Your task to perform on an android device: turn on showing notifications on the lock screen Image 0: 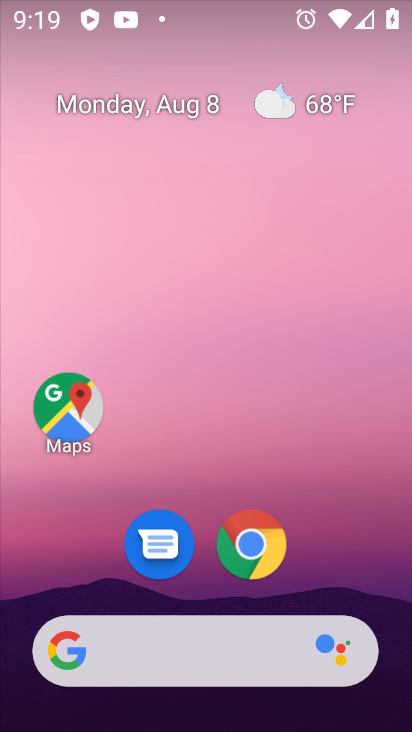
Step 0: press home button
Your task to perform on an android device: turn on showing notifications on the lock screen Image 1: 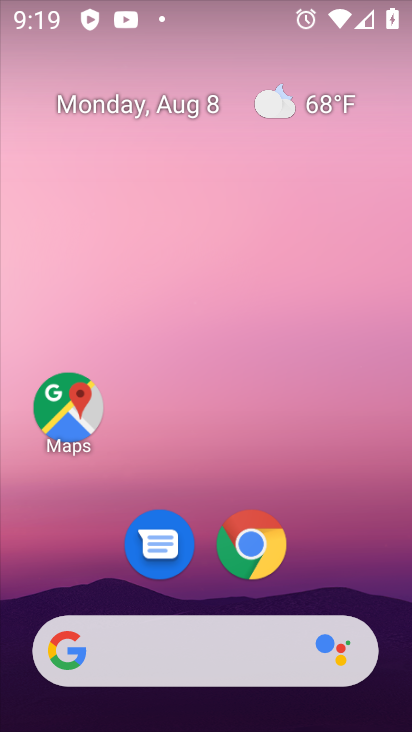
Step 1: drag from (317, 583) to (365, 17)
Your task to perform on an android device: turn on showing notifications on the lock screen Image 2: 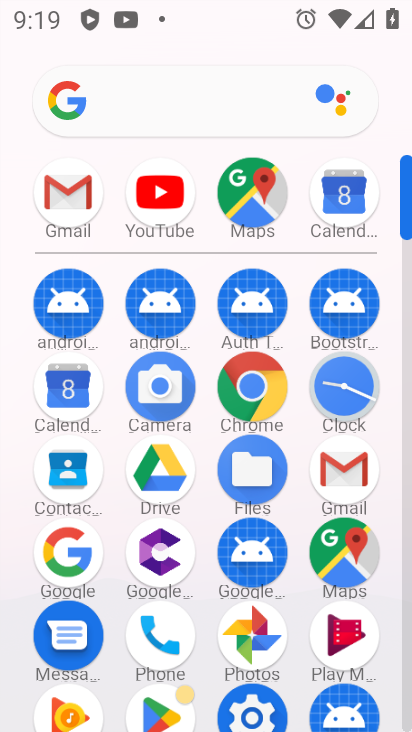
Step 2: drag from (209, 667) to (256, 166)
Your task to perform on an android device: turn on showing notifications on the lock screen Image 3: 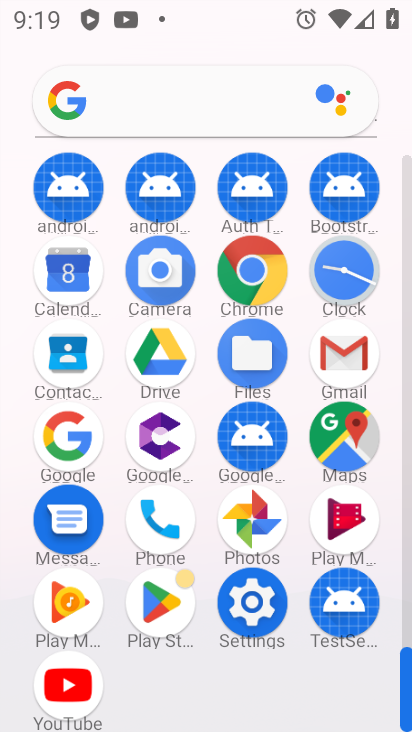
Step 3: click (244, 601)
Your task to perform on an android device: turn on showing notifications on the lock screen Image 4: 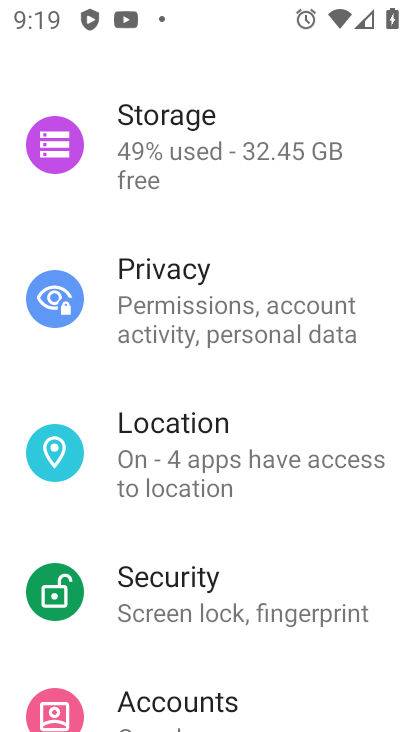
Step 4: drag from (172, 124) to (170, 612)
Your task to perform on an android device: turn on showing notifications on the lock screen Image 5: 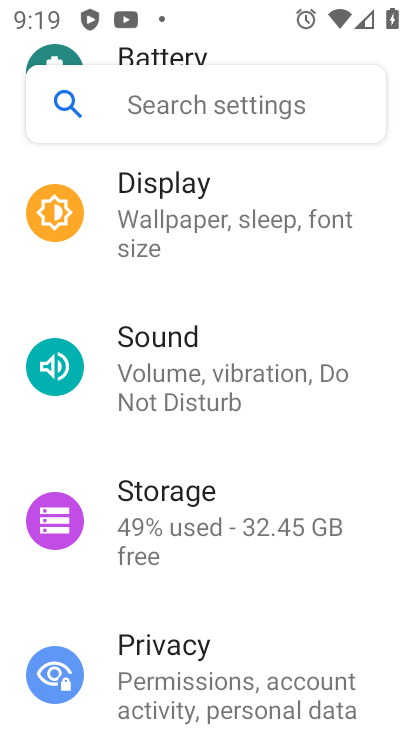
Step 5: drag from (225, 201) to (232, 688)
Your task to perform on an android device: turn on showing notifications on the lock screen Image 6: 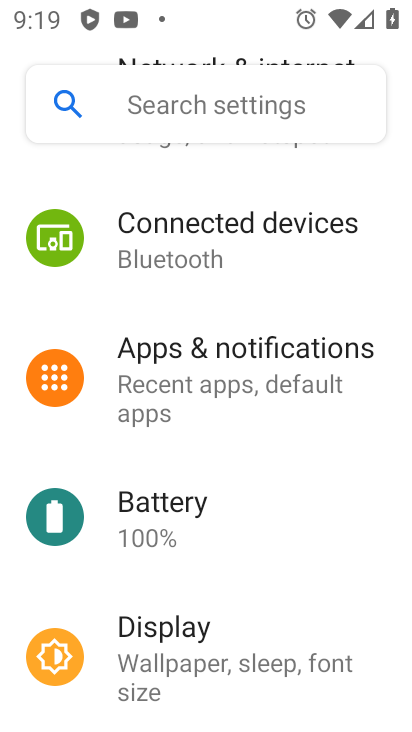
Step 6: click (249, 362)
Your task to perform on an android device: turn on showing notifications on the lock screen Image 7: 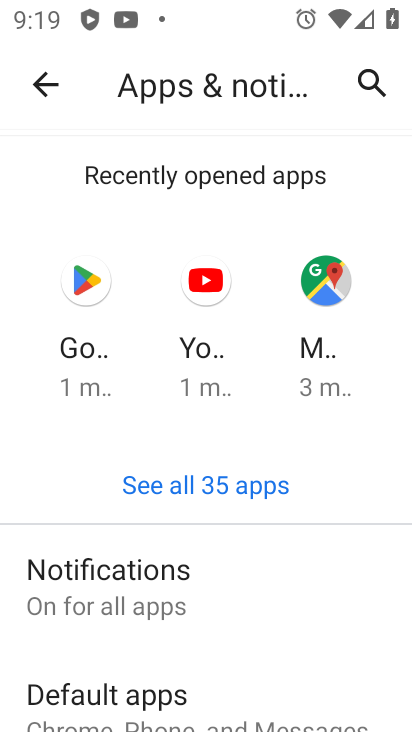
Step 7: click (204, 589)
Your task to perform on an android device: turn on showing notifications on the lock screen Image 8: 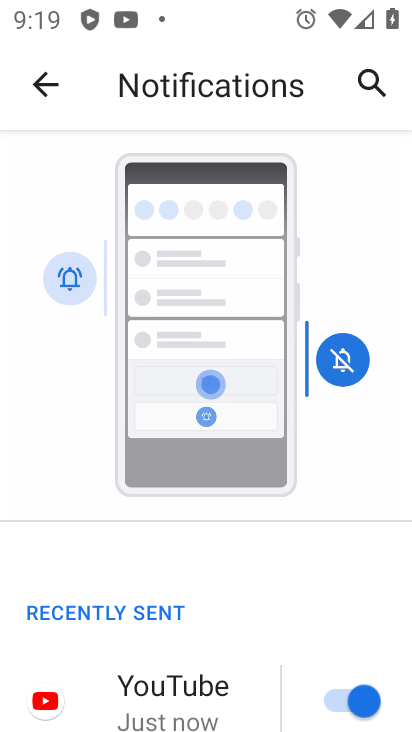
Step 8: drag from (260, 672) to (265, 191)
Your task to perform on an android device: turn on showing notifications on the lock screen Image 9: 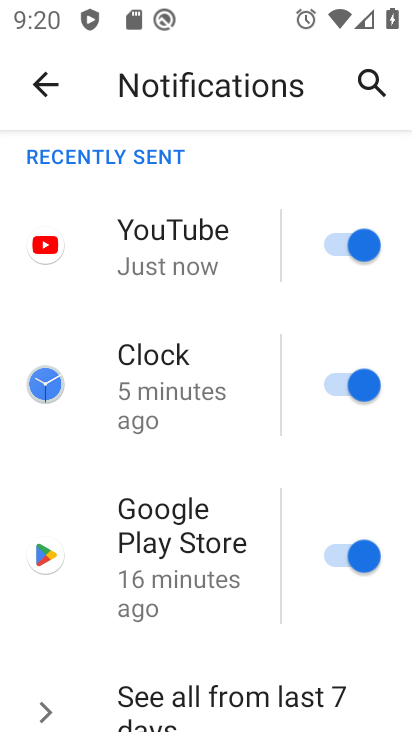
Step 9: drag from (246, 665) to (274, 176)
Your task to perform on an android device: turn on showing notifications on the lock screen Image 10: 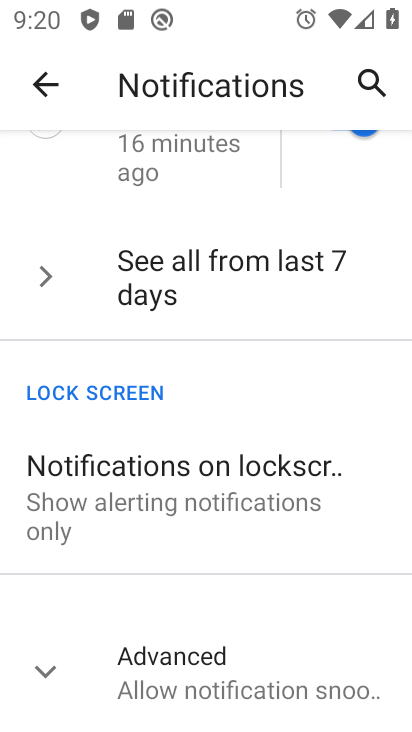
Step 10: click (116, 593)
Your task to perform on an android device: turn on showing notifications on the lock screen Image 11: 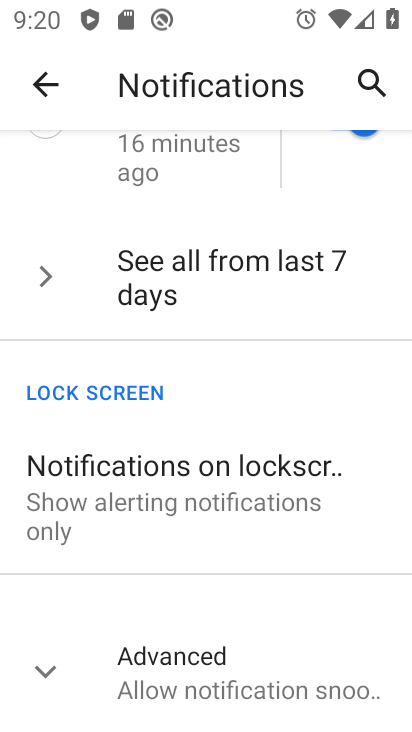
Step 11: click (121, 511)
Your task to perform on an android device: turn on showing notifications on the lock screen Image 12: 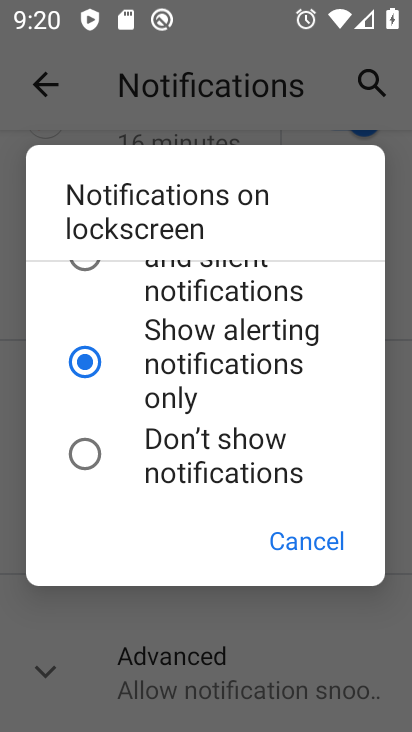
Step 12: click (87, 266)
Your task to perform on an android device: turn on showing notifications on the lock screen Image 13: 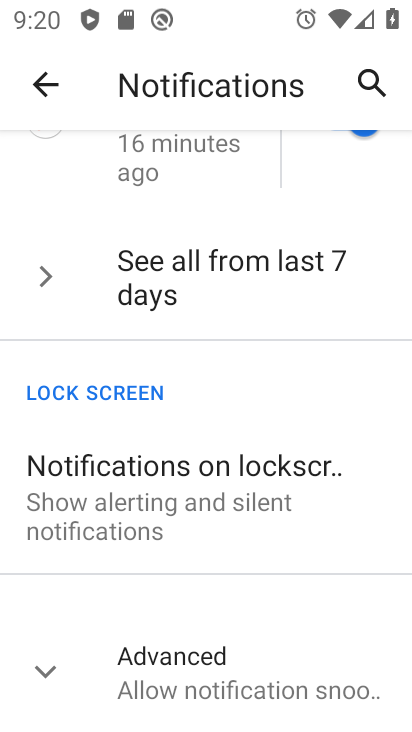
Step 13: task complete